Your task to perform on an android device: check storage Image 0: 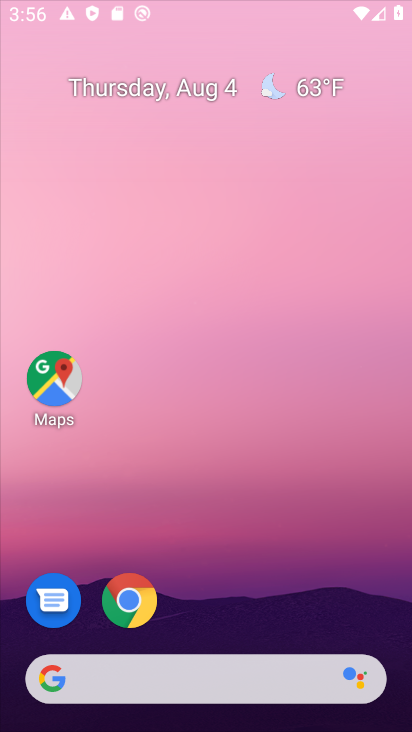
Step 0: drag from (296, 205) to (290, 65)
Your task to perform on an android device: check storage Image 1: 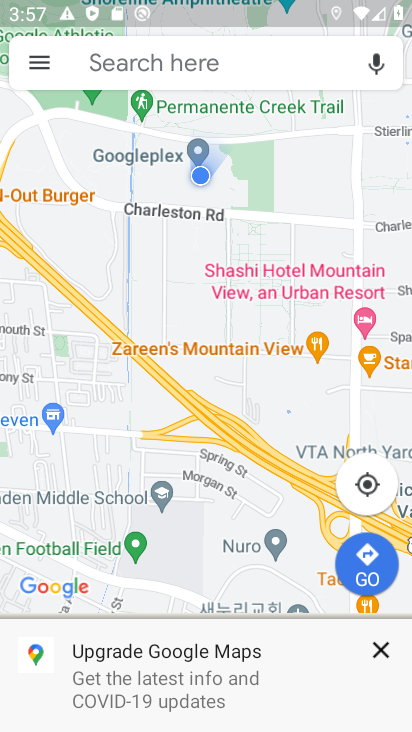
Step 1: press home button
Your task to perform on an android device: check storage Image 2: 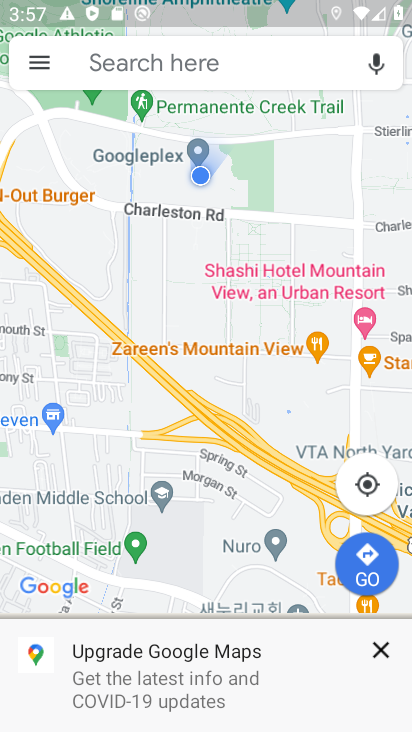
Step 2: press home button
Your task to perform on an android device: check storage Image 3: 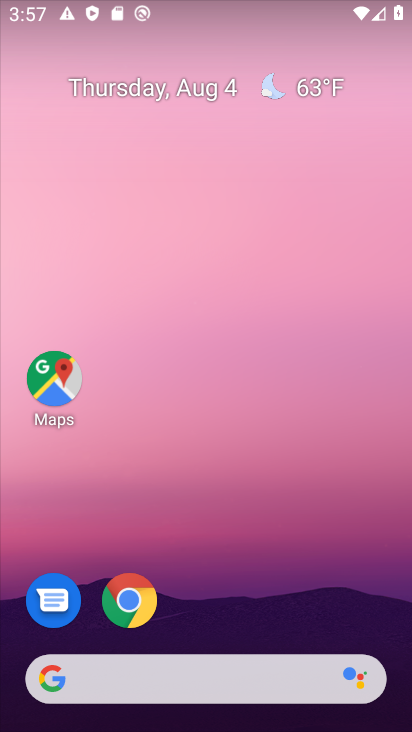
Step 3: drag from (294, 570) to (174, 95)
Your task to perform on an android device: check storage Image 4: 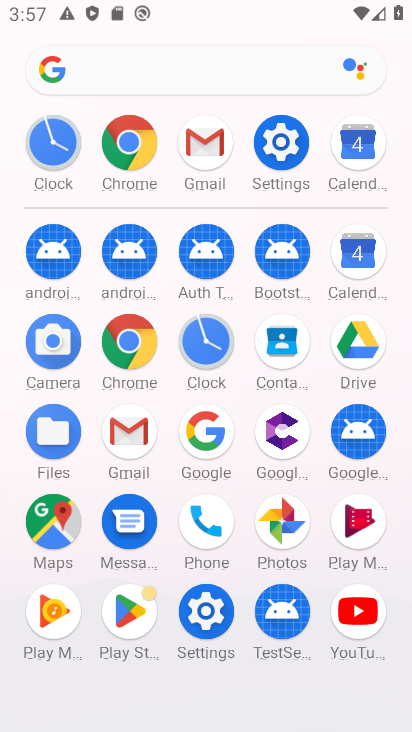
Step 4: click (276, 128)
Your task to perform on an android device: check storage Image 5: 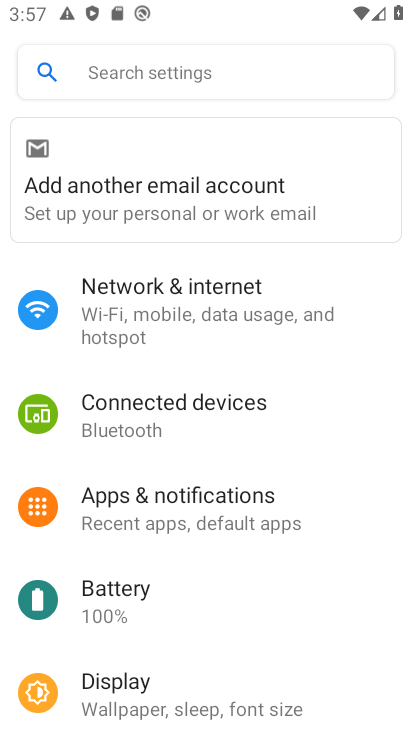
Step 5: drag from (309, 559) to (328, 106)
Your task to perform on an android device: check storage Image 6: 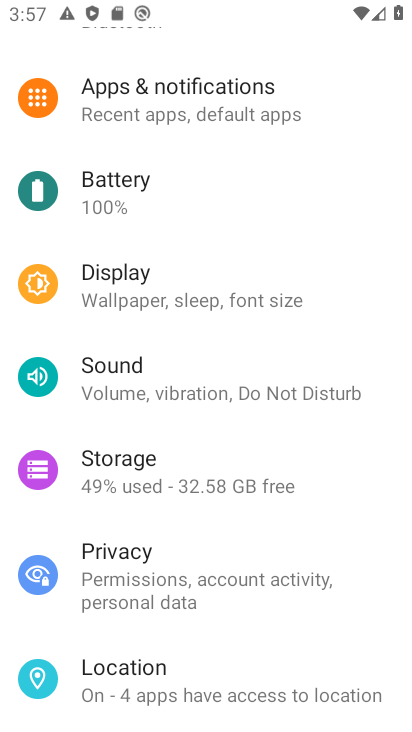
Step 6: click (136, 490)
Your task to perform on an android device: check storage Image 7: 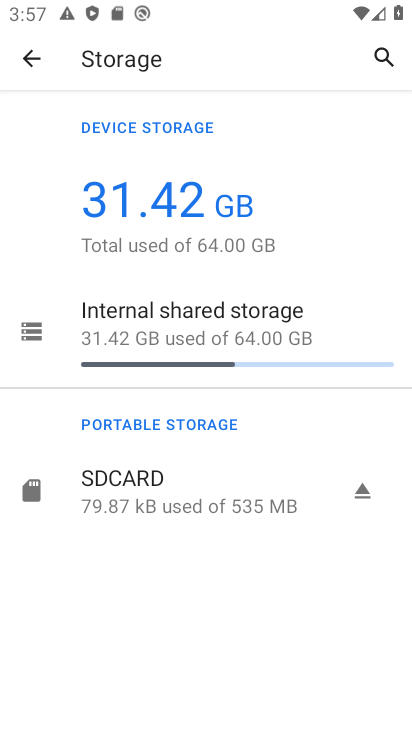
Step 7: task complete